Your task to perform on an android device: check battery use Image 0: 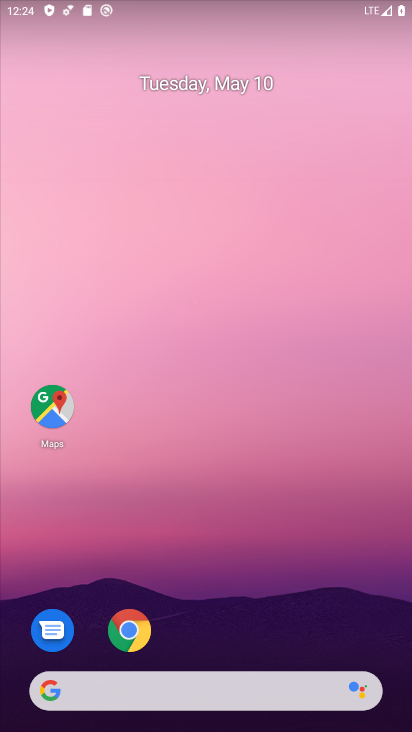
Step 0: drag from (223, 722) to (222, 230)
Your task to perform on an android device: check battery use Image 1: 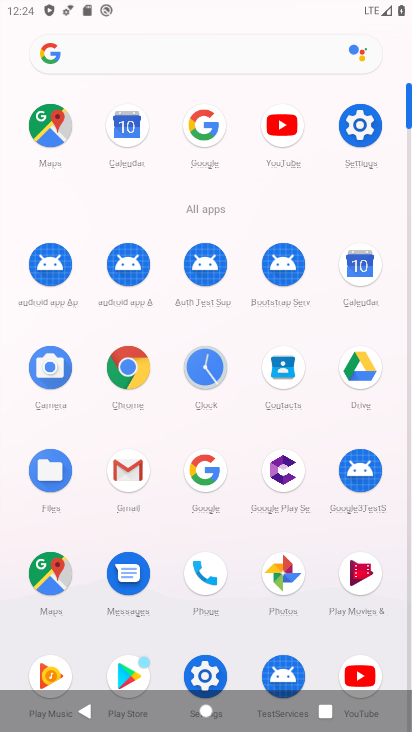
Step 1: click (360, 120)
Your task to perform on an android device: check battery use Image 2: 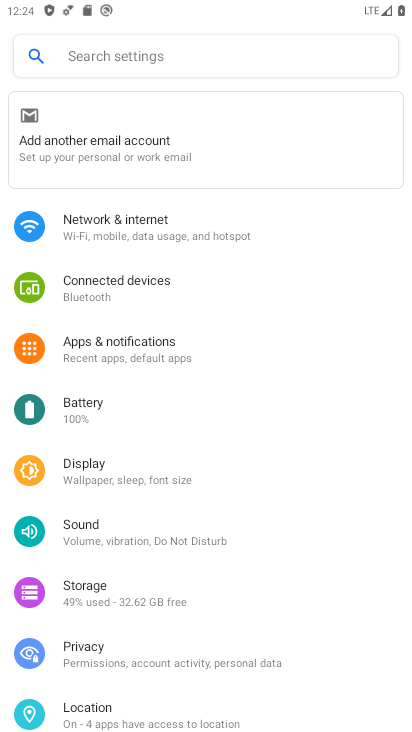
Step 2: drag from (119, 679) to (119, 480)
Your task to perform on an android device: check battery use Image 3: 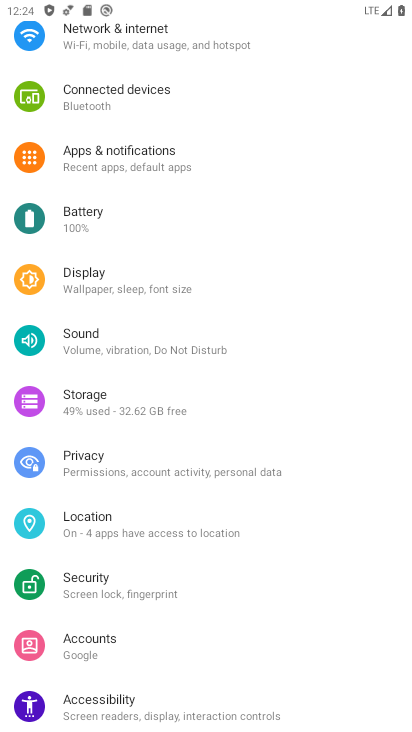
Step 3: click (79, 210)
Your task to perform on an android device: check battery use Image 4: 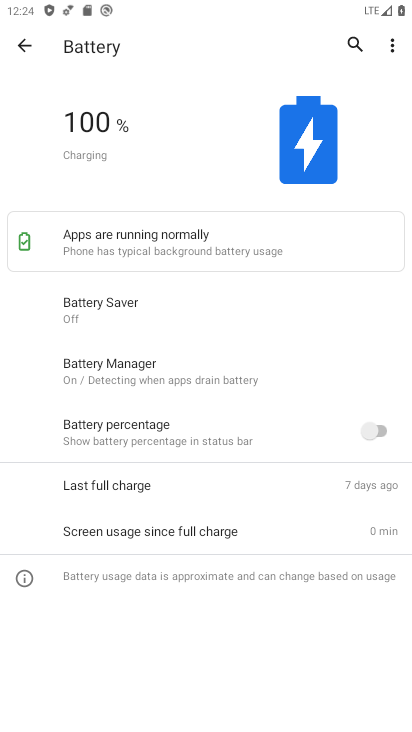
Step 4: click (390, 43)
Your task to perform on an android device: check battery use Image 5: 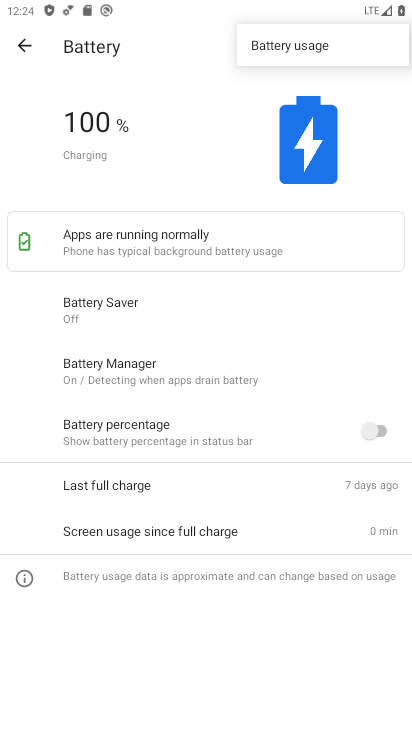
Step 5: click (301, 41)
Your task to perform on an android device: check battery use Image 6: 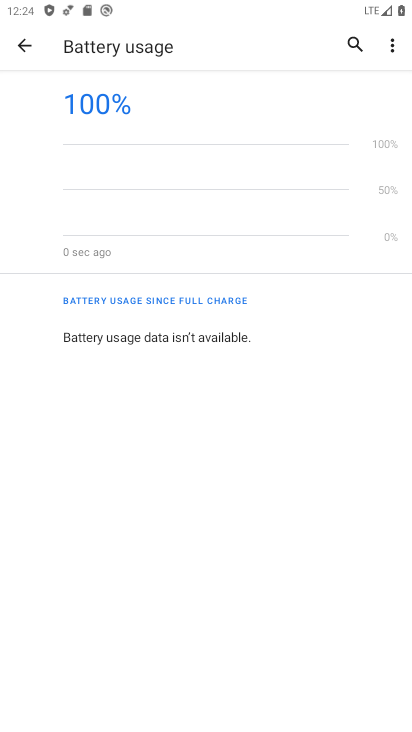
Step 6: task complete